Your task to perform on an android device: Is it going to rain today? Image 0: 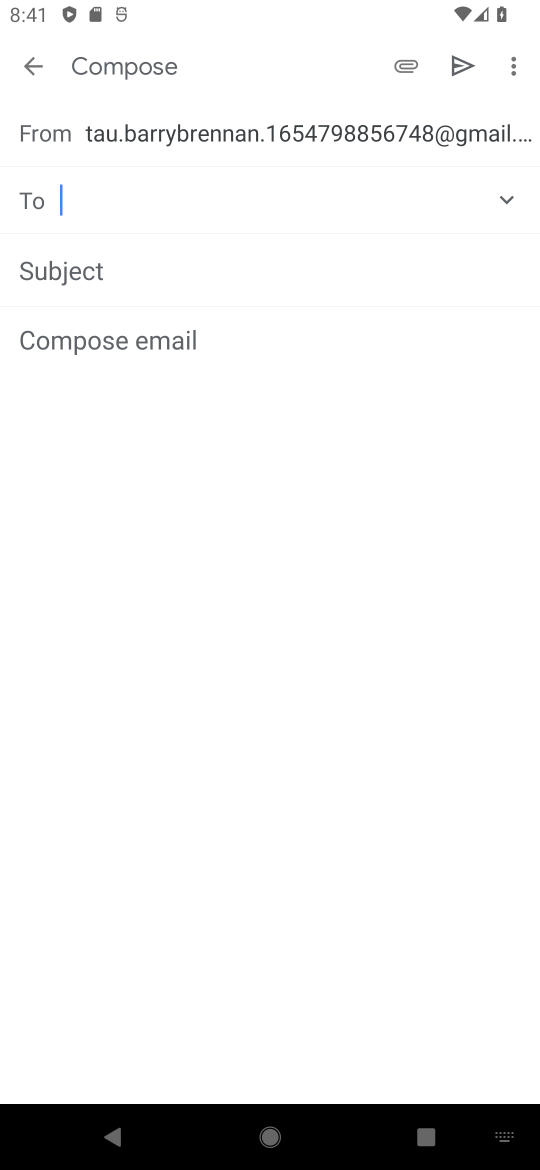
Step 0: press home button
Your task to perform on an android device: Is it going to rain today? Image 1: 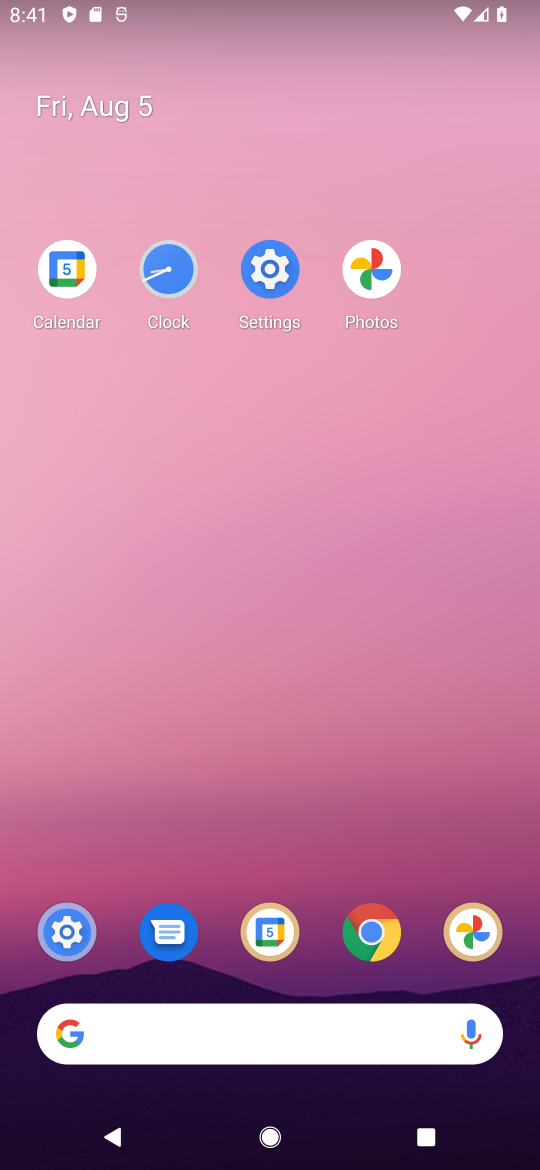
Step 1: drag from (313, 895) to (344, 284)
Your task to perform on an android device: Is it going to rain today? Image 2: 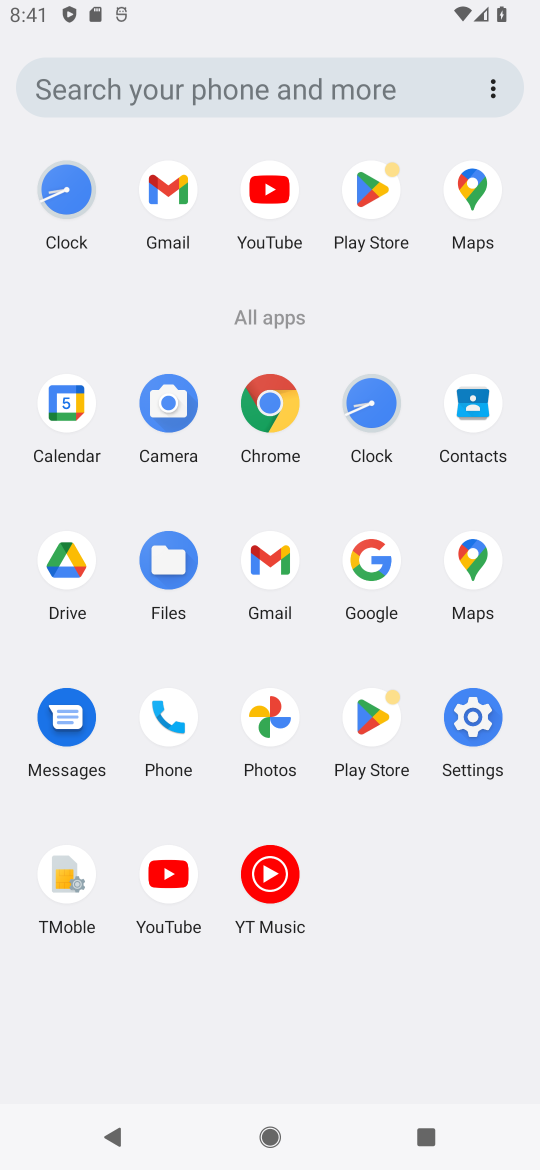
Step 2: drag from (381, 557) to (91, 408)
Your task to perform on an android device: Is it going to rain today? Image 3: 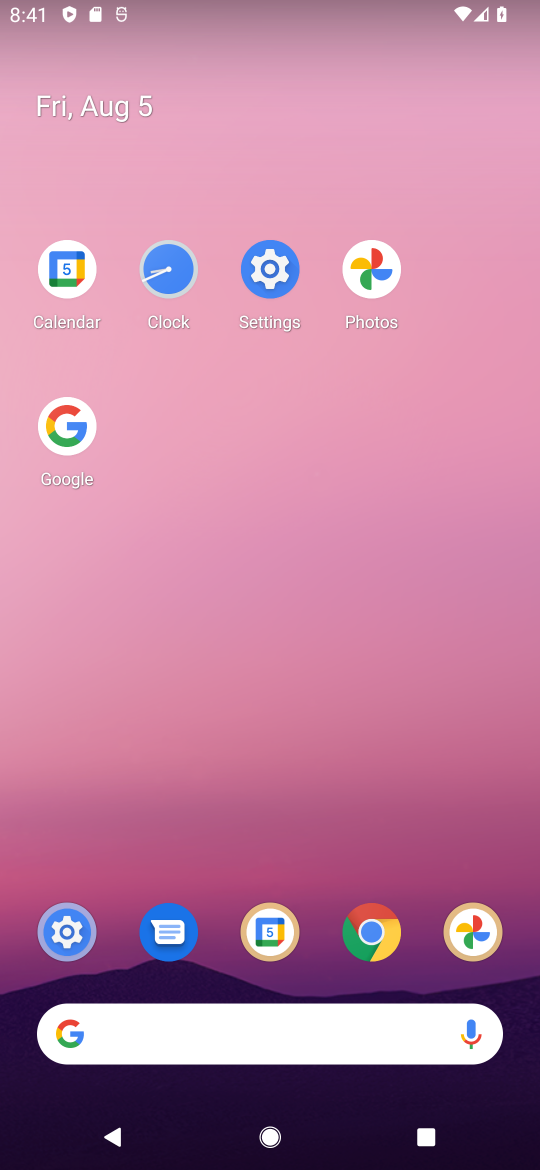
Step 3: click (79, 427)
Your task to perform on an android device: Is it going to rain today? Image 4: 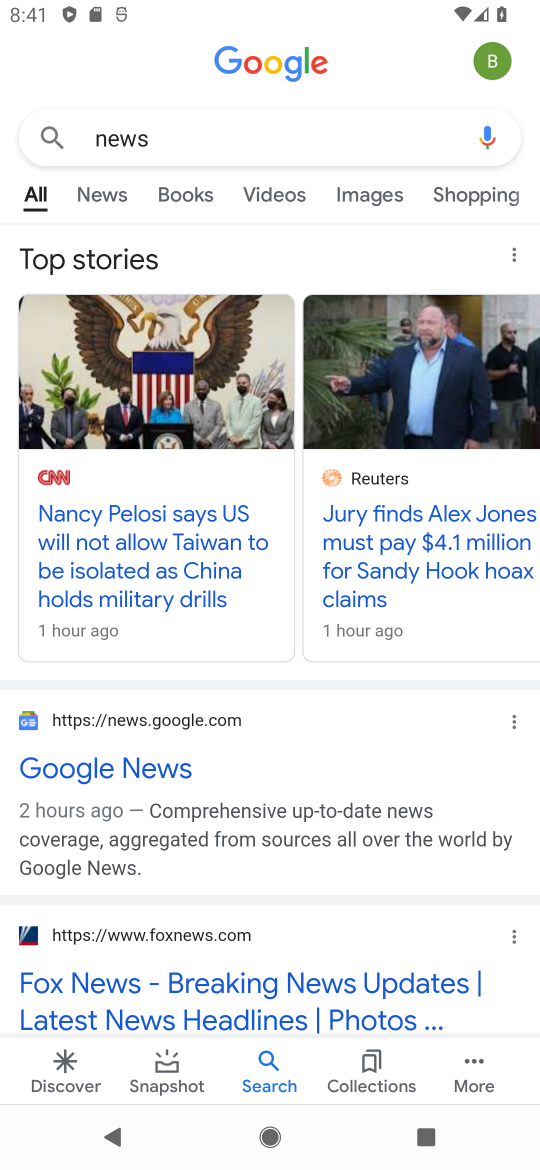
Step 4: click (245, 134)
Your task to perform on an android device: Is it going to rain today? Image 5: 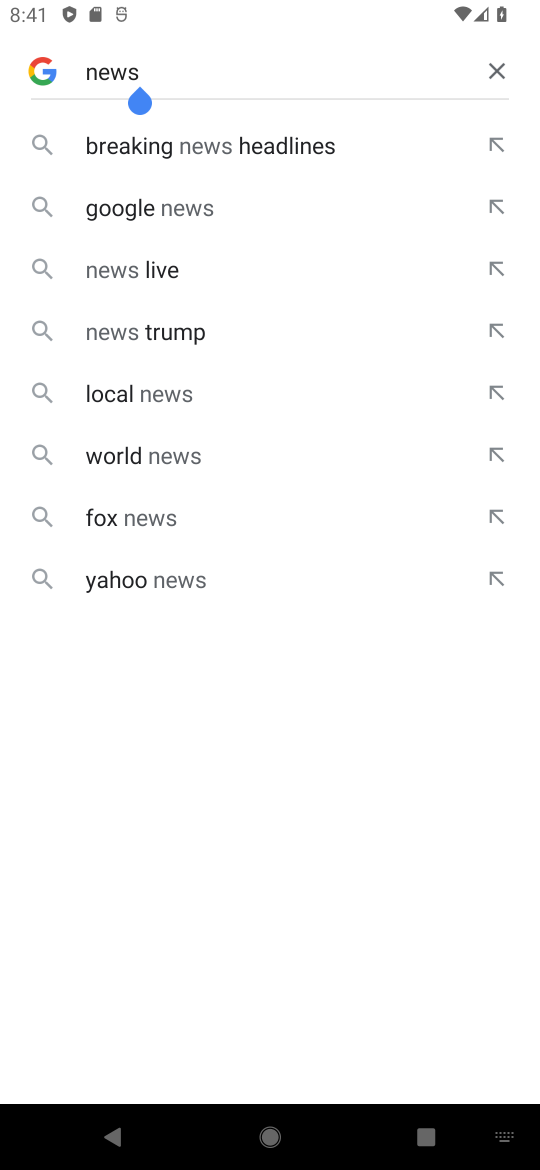
Step 5: click (496, 79)
Your task to perform on an android device: Is it going to rain today? Image 6: 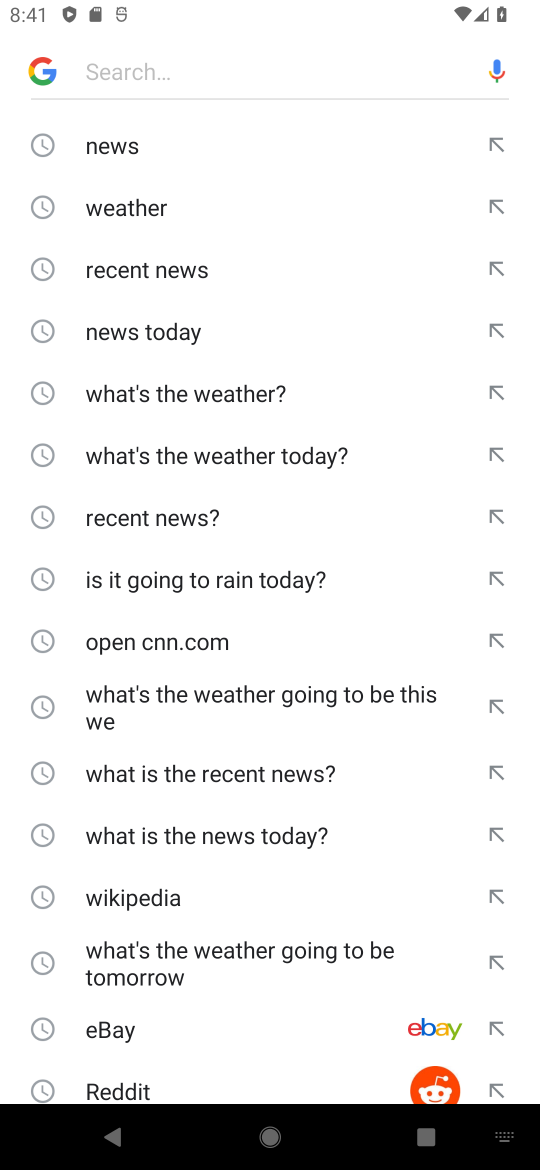
Step 6: click (187, 208)
Your task to perform on an android device: Is it going to rain today? Image 7: 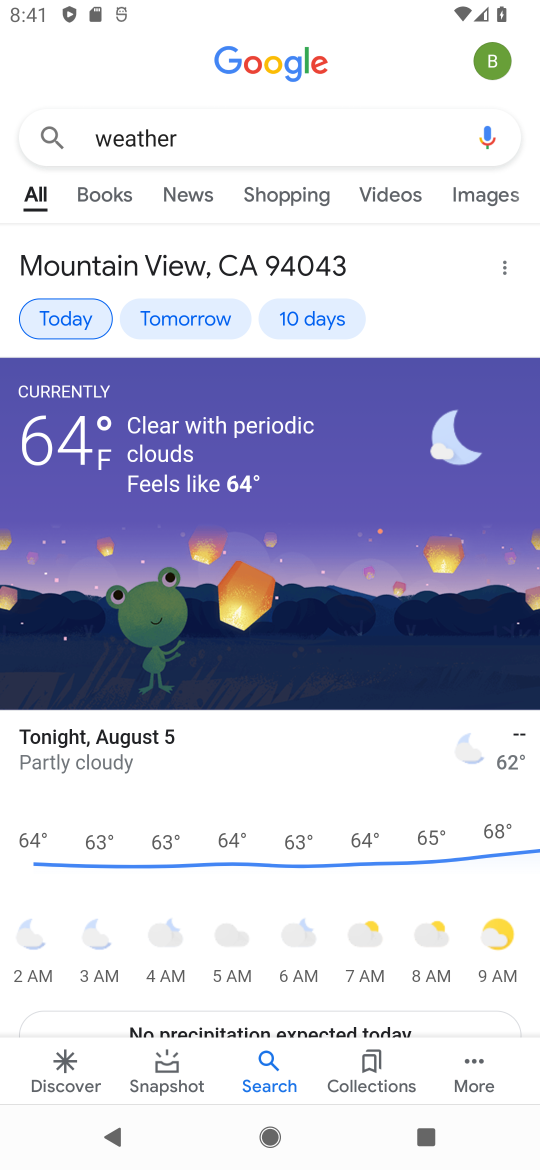
Step 7: task complete